Your task to perform on an android device: turn on the 12-hour format for clock Image 0: 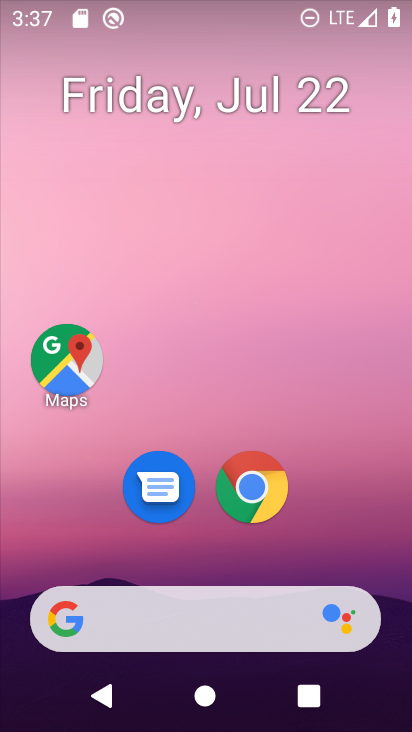
Step 0: drag from (130, 563) to (319, 34)
Your task to perform on an android device: turn on the 12-hour format for clock Image 1: 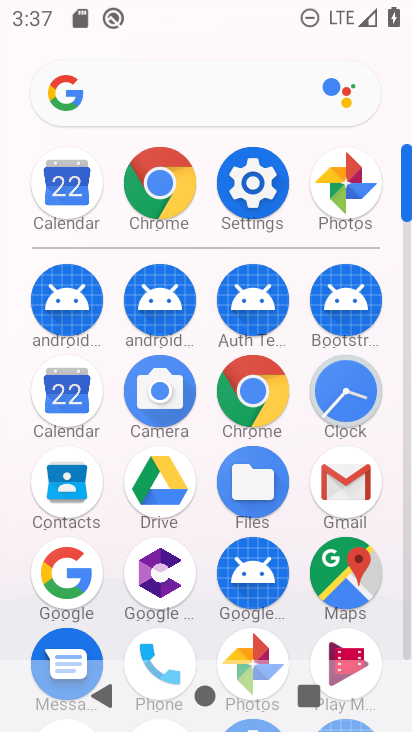
Step 1: click (334, 396)
Your task to perform on an android device: turn on the 12-hour format for clock Image 2: 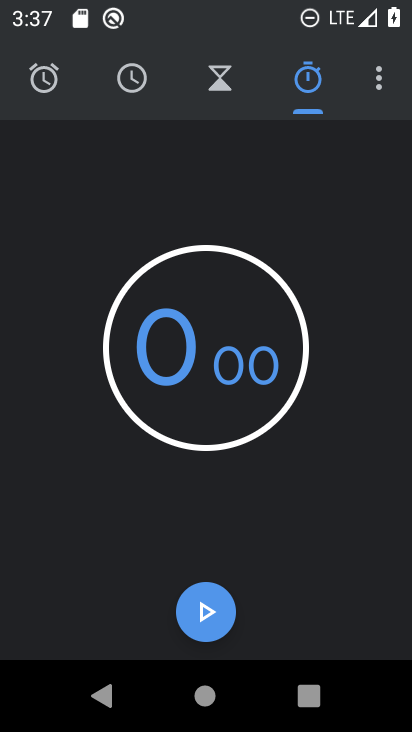
Step 2: click (382, 74)
Your task to perform on an android device: turn on the 12-hour format for clock Image 3: 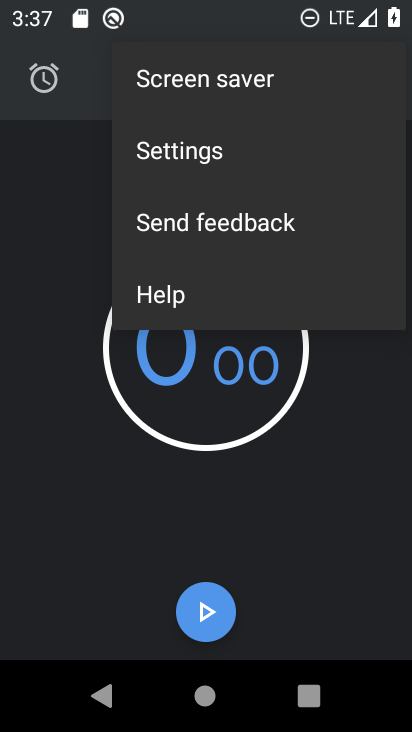
Step 3: click (181, 158)
Your task to perform on an android device: turn on the 12-hour format for clock Image 4: 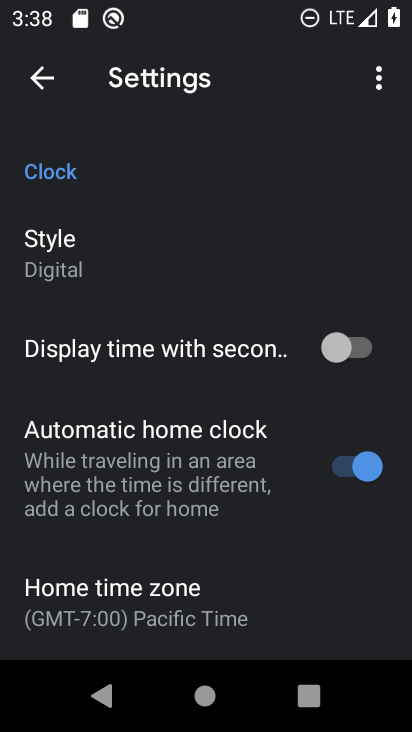
Step 4: drag from (123, 584) to (132, 341)
Your task to perform on an android device: turn on the 12-hour format for clock Image 5: 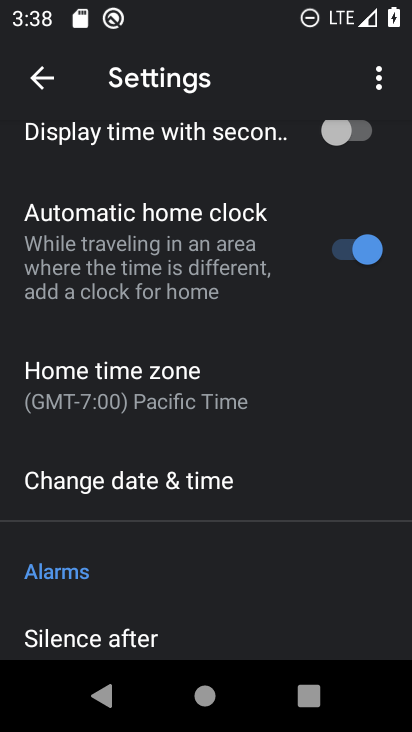
Step 5: click (126, 480)
Your task to perform on an android device: turn on the 12-hour format for clock Image 6: 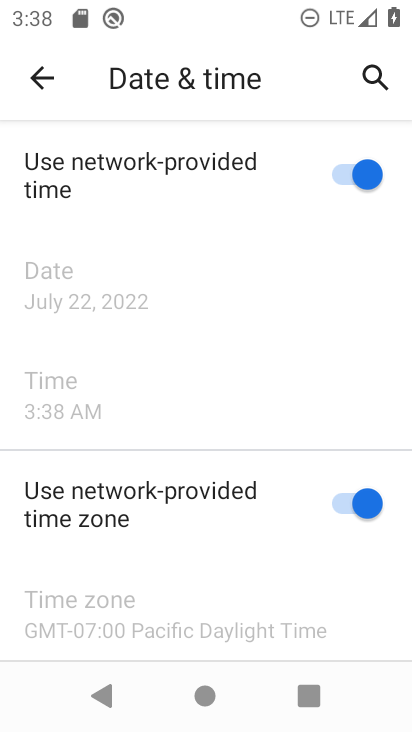
Step 6: task complete